Your task to perform on an android device: find snoozed emails in the gmail app Image 0: 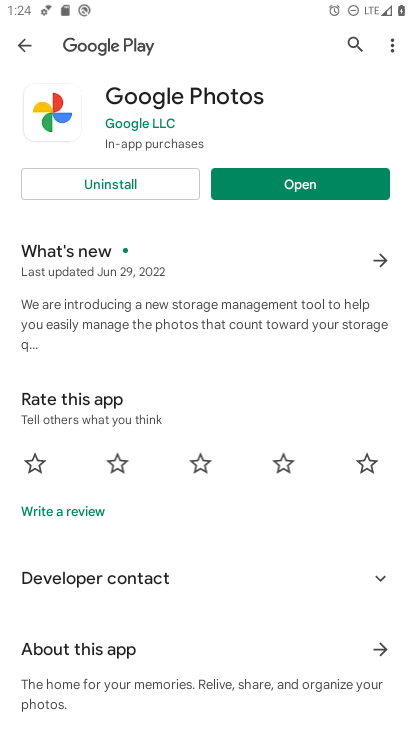
Step 0: press home button
Your task to perform on an android device: find snoozed emails in the gmail app Image 1: 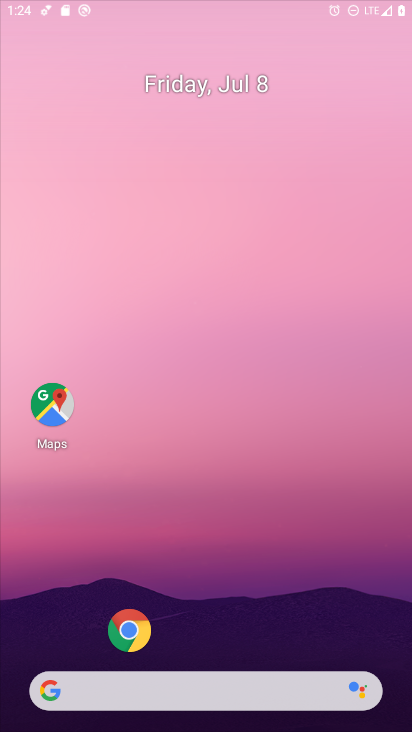
Step 1: drag from (275, 606) to (347, 15)
Your task to perform on an android device: find snoozed emails in the gmail app Image 2: 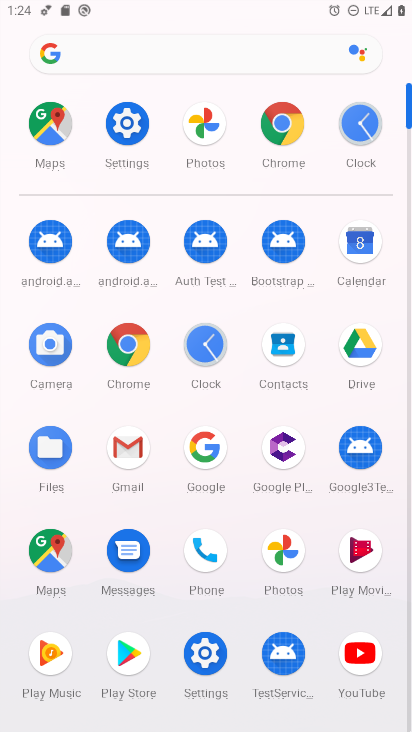
Step 2: click (129, 444)
Your task to perform on an android device: find snoozed emails in the gmail app Image 3: 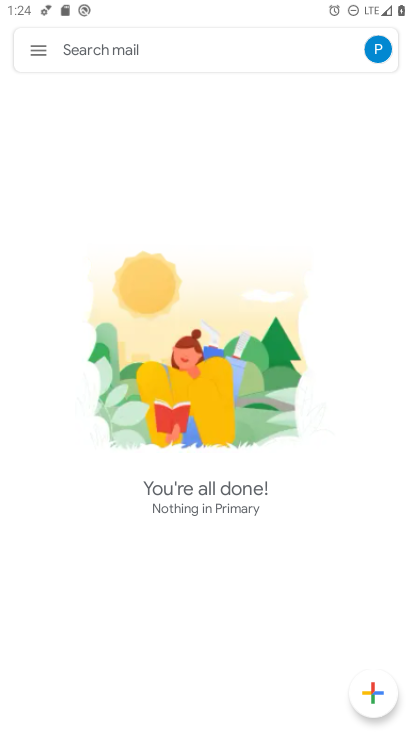
Step 3: click (32, 34)
Your task to perform on an android device: find snoozed emails in the gmail app Image 4: 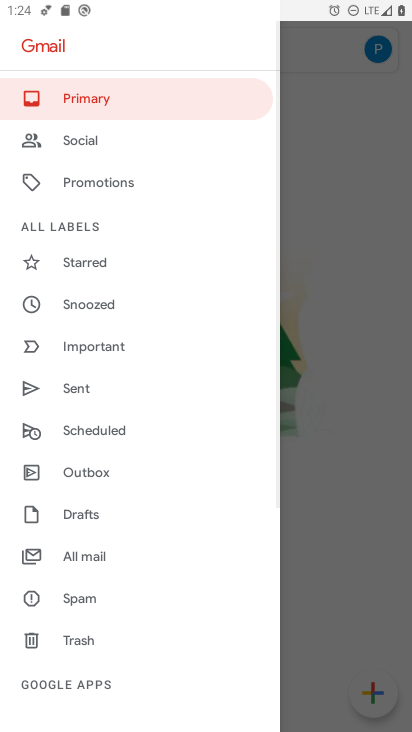
Step 4: click (103, 314)
Your task to perform on an android device: find snoozed emails in the gmail app Image 5: 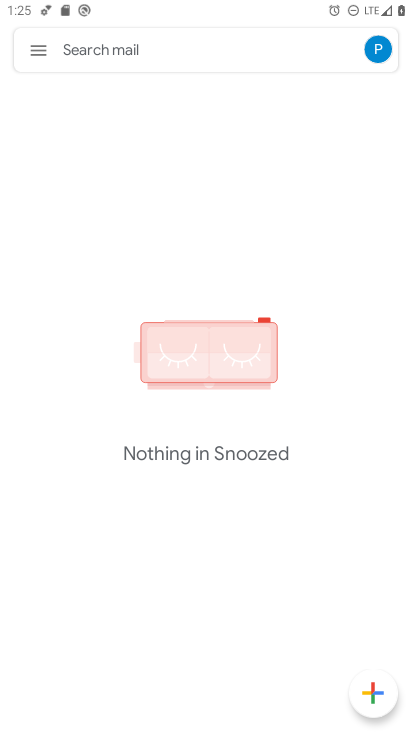
Step 5: task complete